Your task to perform on an android device: snooze an email in the gmail app Image 0: 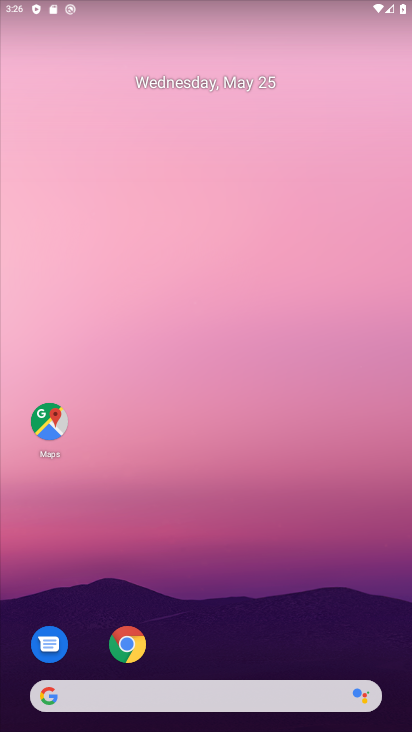
Step 0: drag from (303, 654) to (335, 26)
Your task to perform on an android device: snooze an email in the gmail app Image 1: 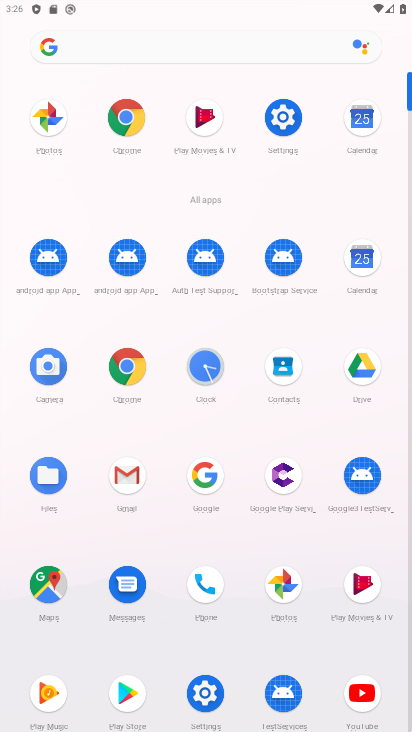
Step 1: click (124, 477)
Your task to perform on an android device: snooze an email in the gmail app Image 2: 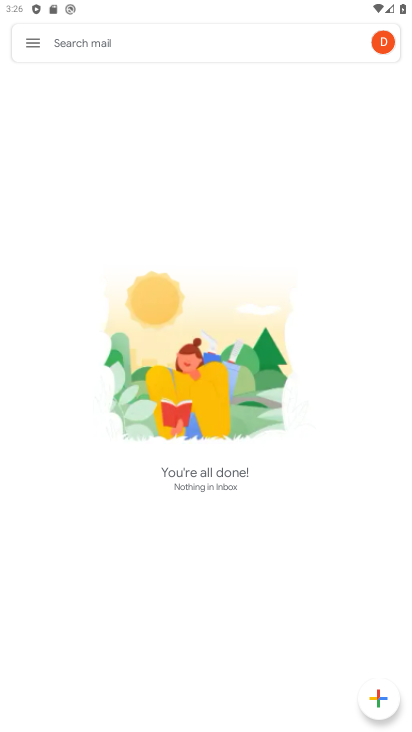
Step 2: click (36, 45)
Your task to perform on an android device: snooze an email in the gmail app Image 3: 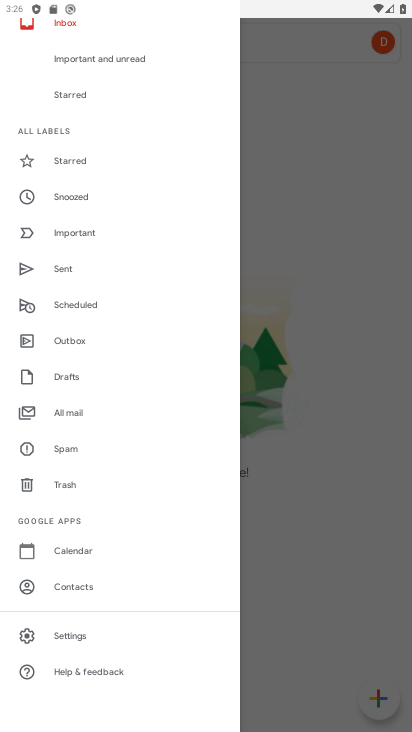
Step 3: click (75, 413)
Your task to perform on an android device: snooze an email in the gmail app Image 4: 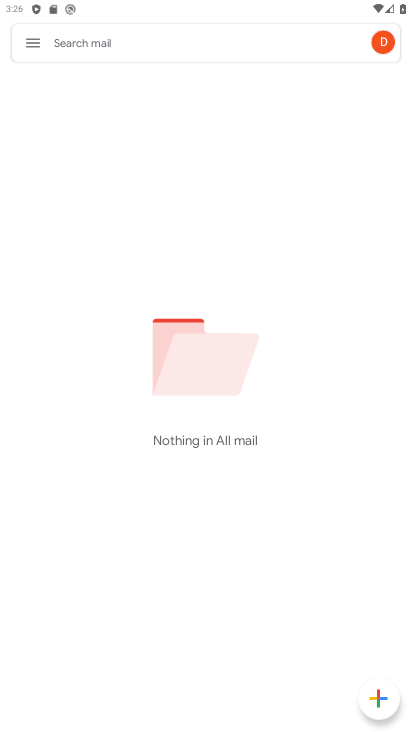
Step 4: task complete